Your task to perform on an android device: Do I have any events today? Image 0: 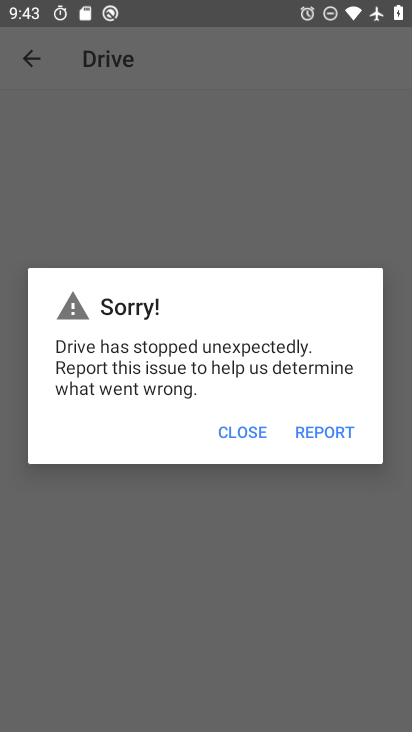
Step 0: press home button
Your task to perform on an android device: Do I have any events today? Image 1: 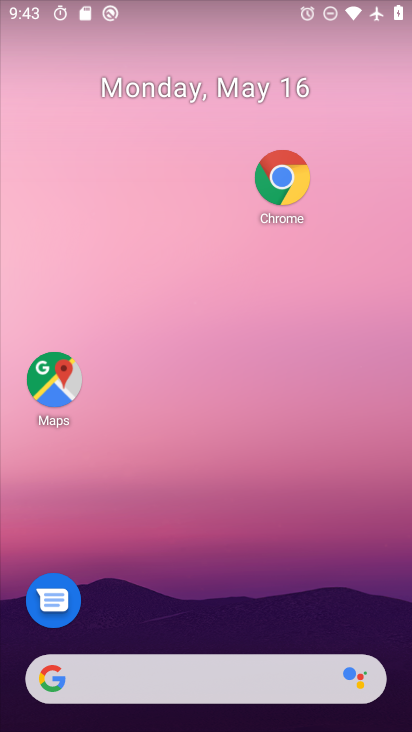
Step 1: click (55, 678)
Your task to perform on an android device: Do I have any events today? Image 2: 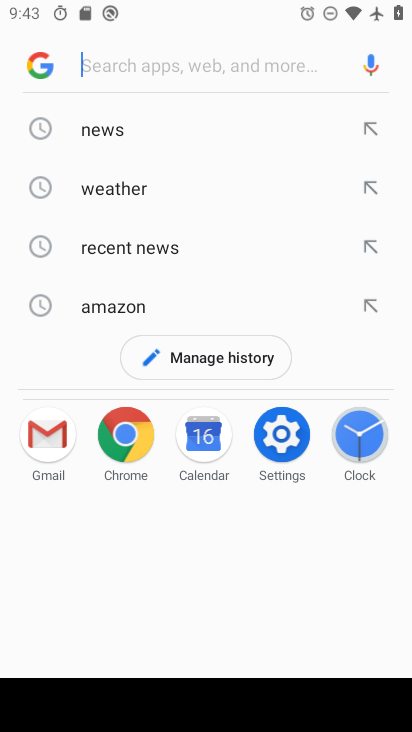
Step 2: press home button
Your task to perform on an android device: Do I have any events today? Image 3: 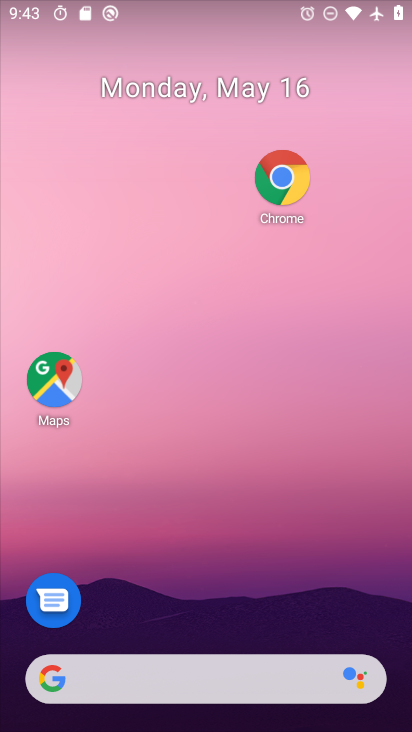
Step 3: drag from (181, 676) to (275, 144)
Your task to perform on an android device: Do I have any events today? Image 4: 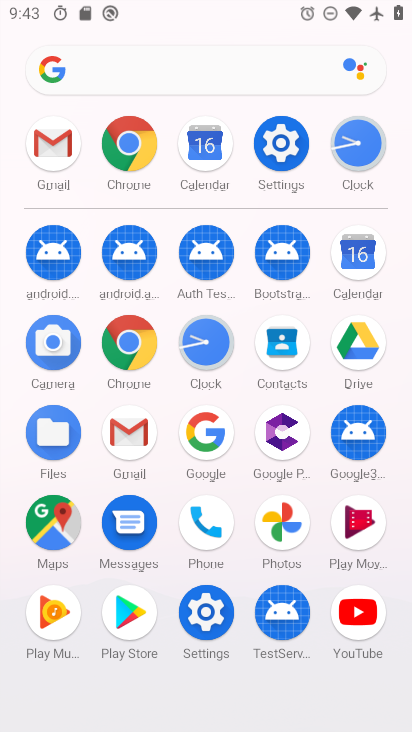
Step 4: click (370, 264)
Your task to perform on an android device: Do I have any events today? Image 5: 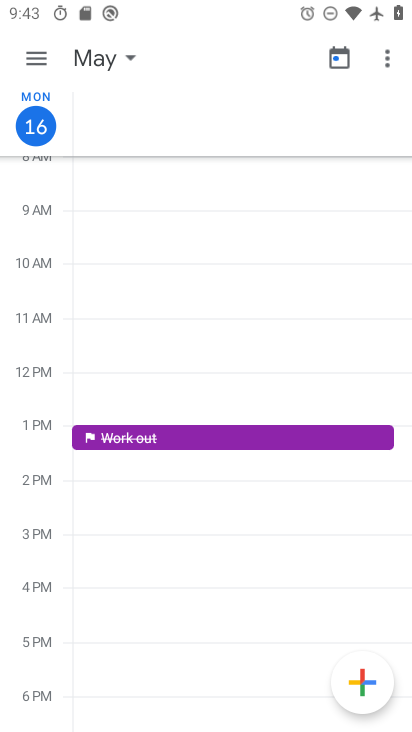
Step 5: click (96, 60)
Your task to perform on an android device: Do I have any events today? Image 6: 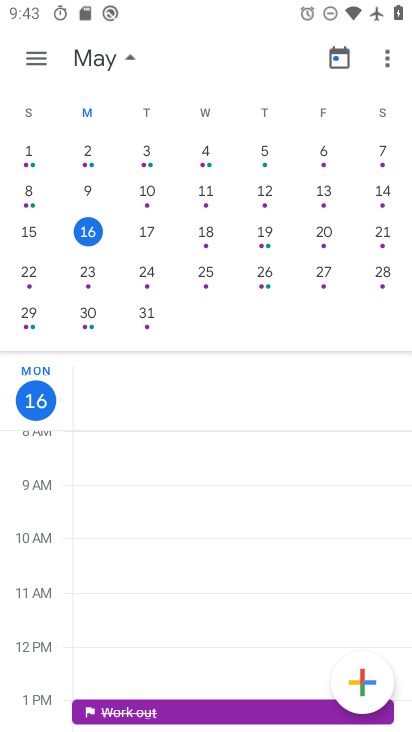
Step 6: click (39, 52)
Your task to perform on an android device: Do I have any events today? Image 7: 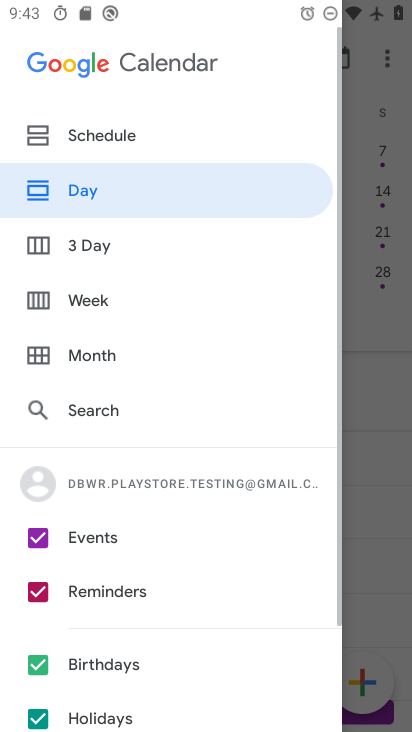
Step 7: click (95, 133)
Your task to perform on an android device: Do I have any events today? Image 8: 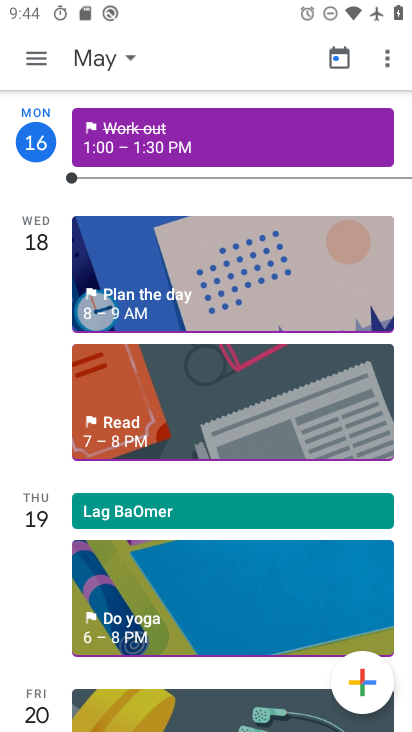
Step 8: click (128, 151)
Your task to perform on an android device: Do I have any events today? Image 9: 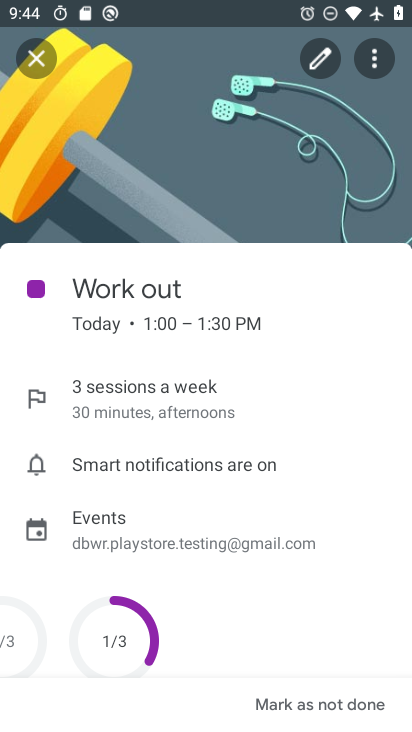
Step 9: task complete